Your task to perform on an android device: Search for Mexican restaurants on Maps Image 0: 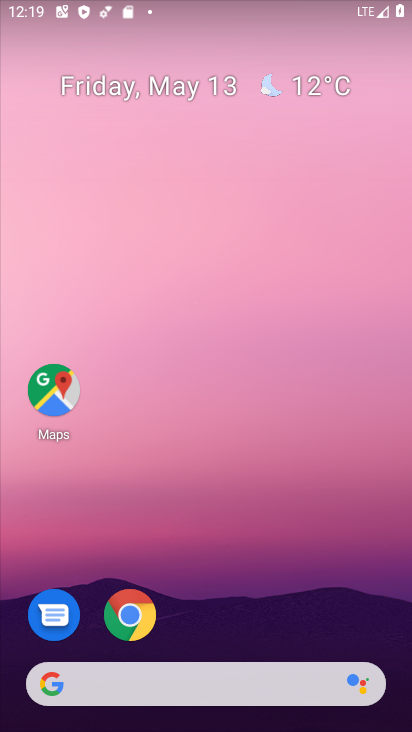
Step 0: click (43, 401)
Your task to perform on an android device: Search for Mexican restaurants on Maps Image 1: 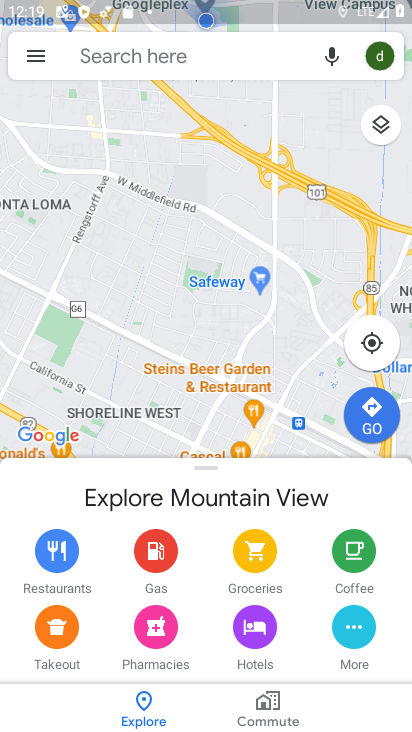
Step 1: click (195, 61)
Your task to perform on an android device: Search for Mexican restaurants on Maps Image 2: 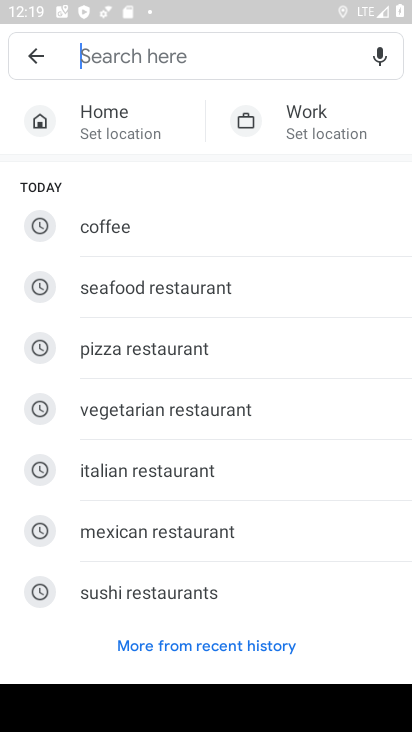
Step 2: click (180, 534)
Your task to perform on an android device: Search for Mexican restaurants on Maps Image 3: 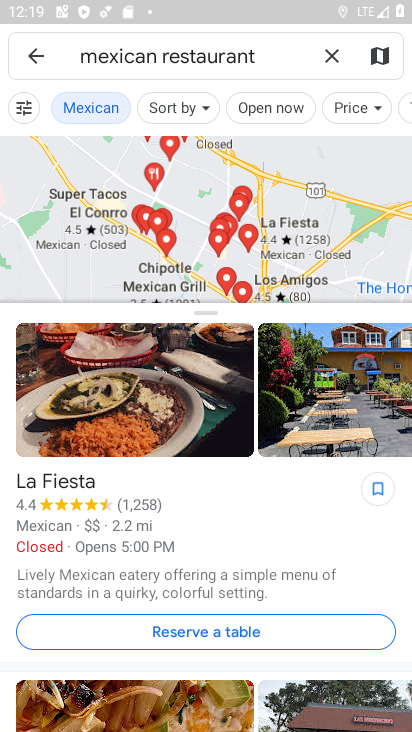
Step 3: task complete